Your task to perform on an android device: change keyboard looks Image 0: 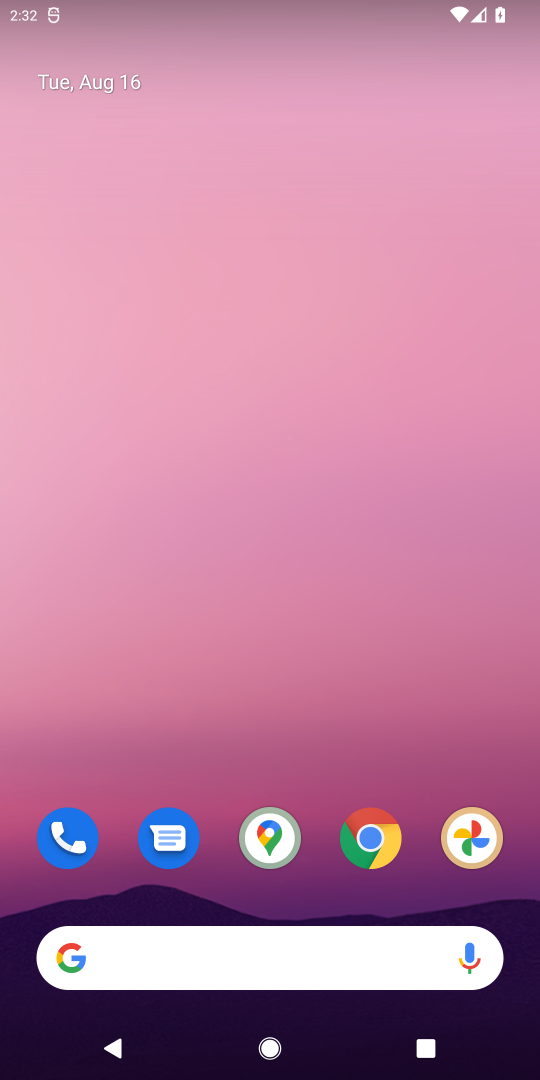
Step 0: press home button
Your task to perform on an android device: change keyboard looks Image 1: 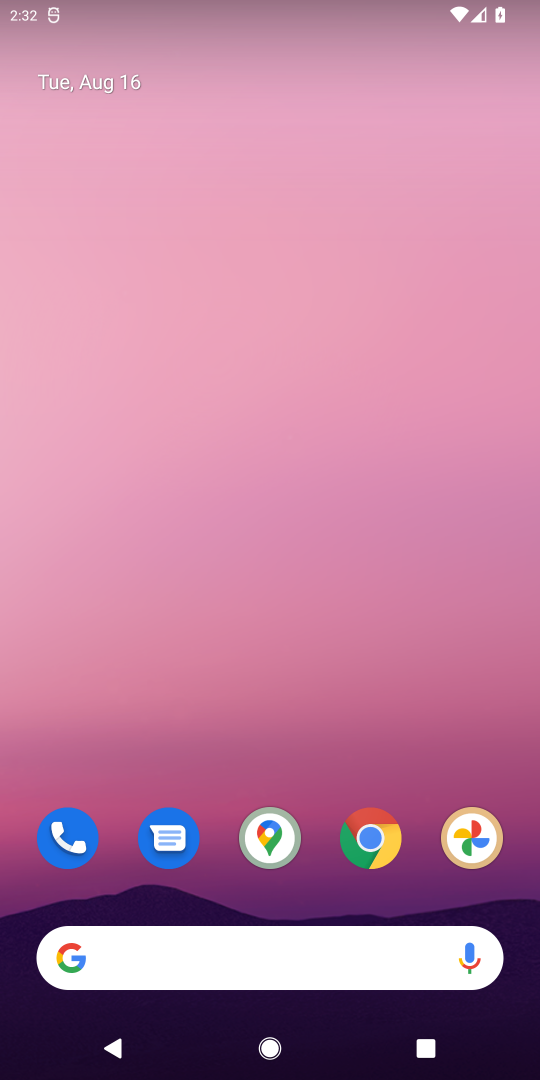
Step 1: drag from (305, 772) to (312, 157)
Your task to perform on an android device: change keyboard looks Image 2: 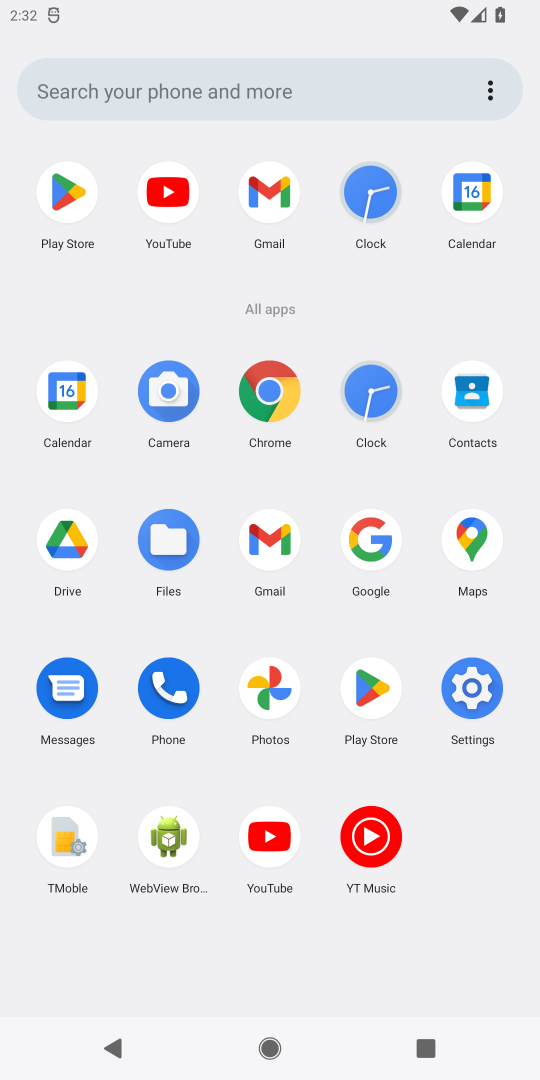
Step 2: click (484, 704)
Your task to perform on an android device: change keyboard looks Image 3: 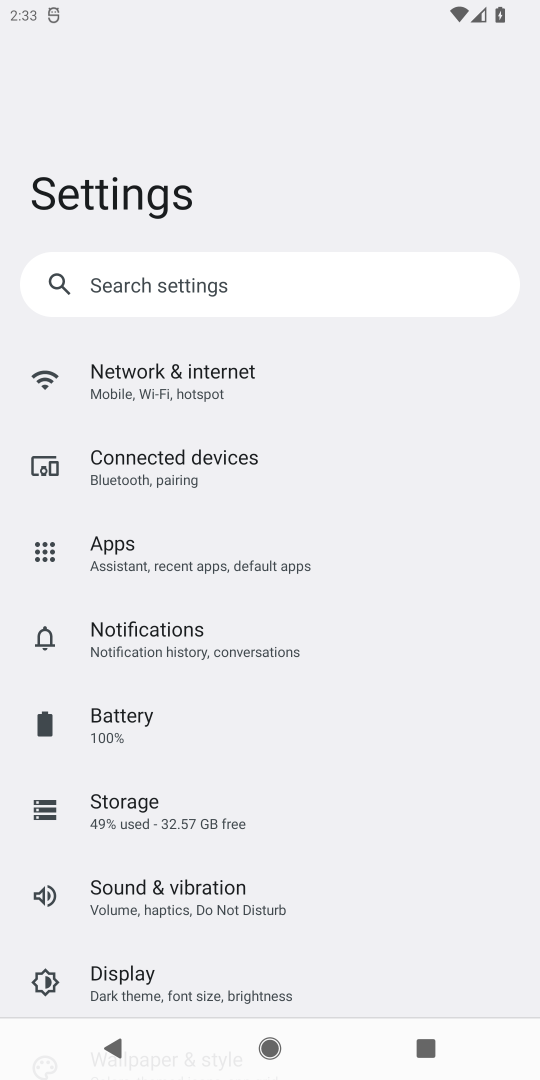
Step 3: drag from (172, 933) to (127, 262)
Your task to perform on an android device: change keyboard looks Image 4: 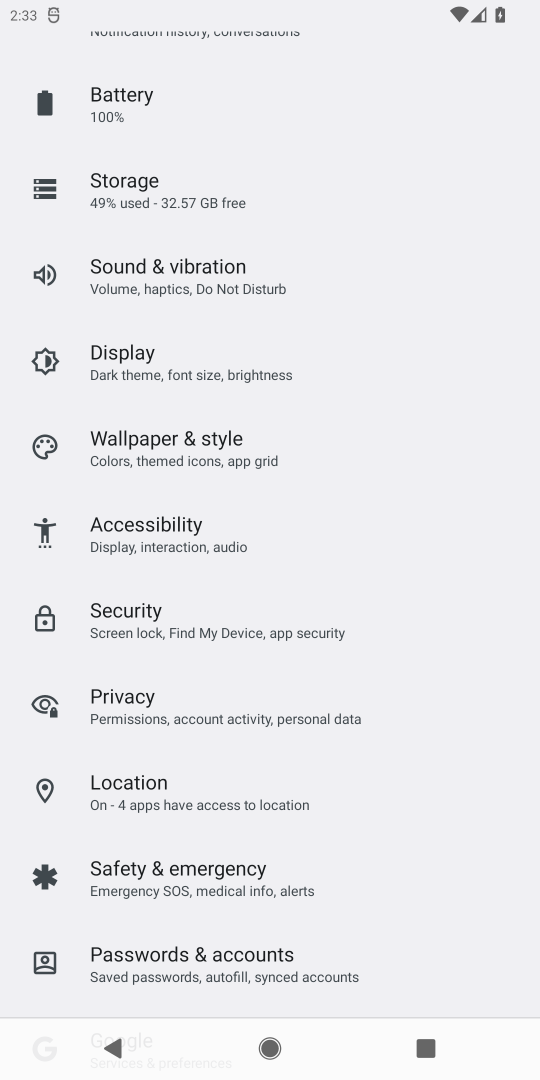
Step 4: drag from (107, 907) to (113, 307)
Your task to perform on an android device: change keyboard looks Image 5: 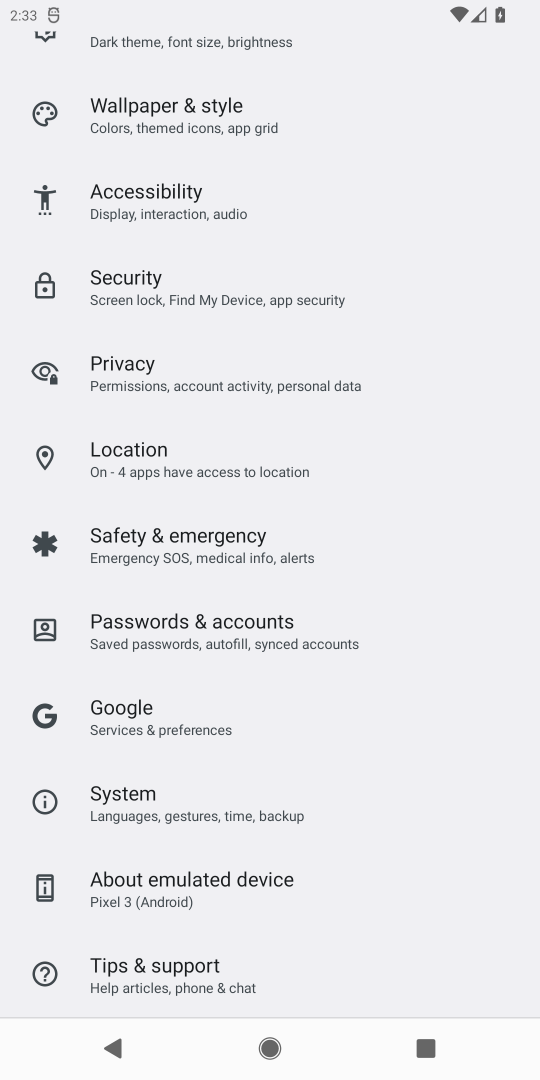
Step 5: click (164, 824)
Your task to perform on an android device: change keyboard looks Image 6: 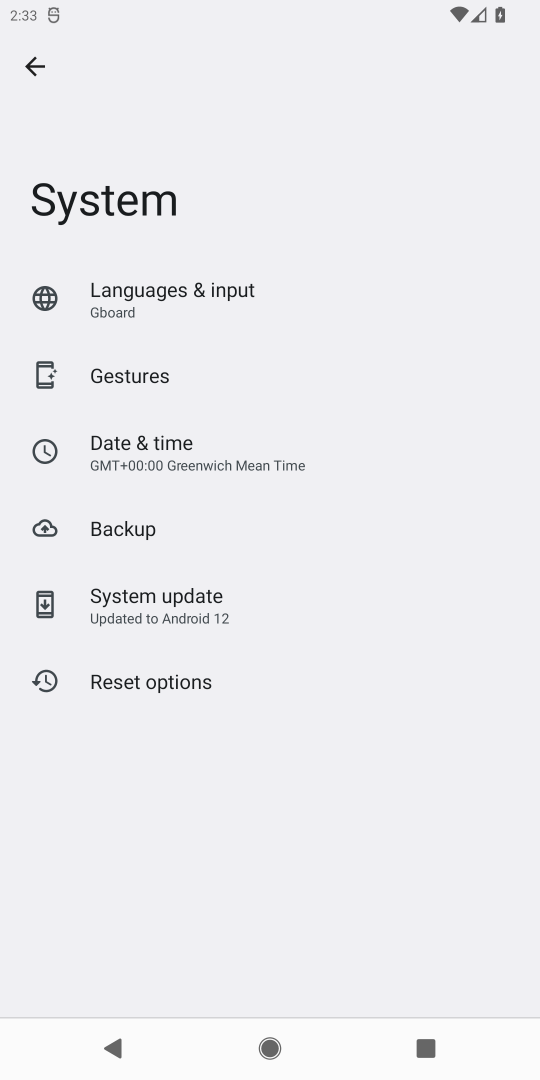
Step 6: click (125, 302)
Your task to perform on an android device: change keyboard looks Image 7: 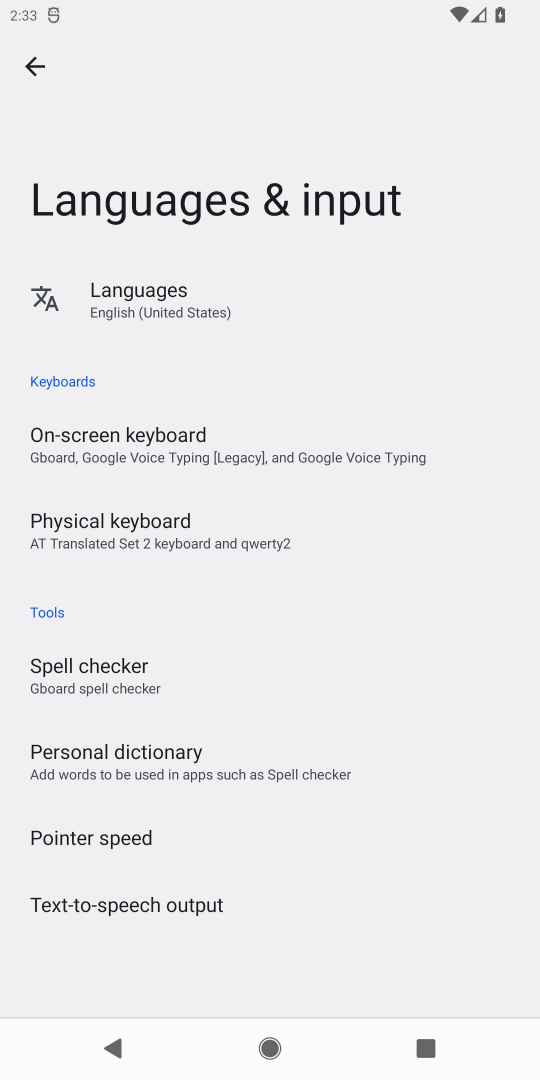
Step 7: click (92, 442)
Your task to perform on an android device: change keyboard looks Image 8: 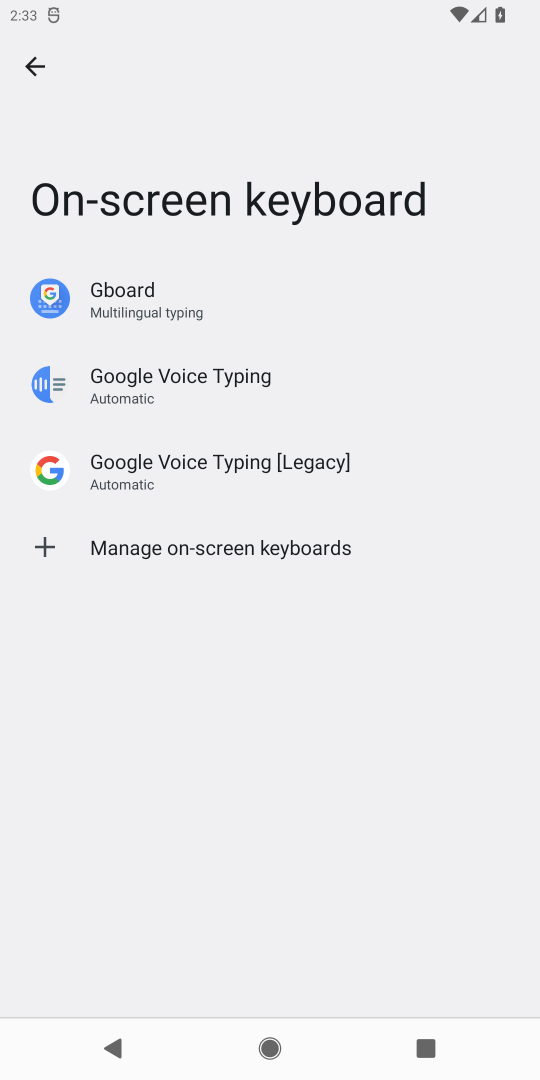
Step 8: click (96, 304)
Your task to perform on an android device: change keyboard looks Image 9: 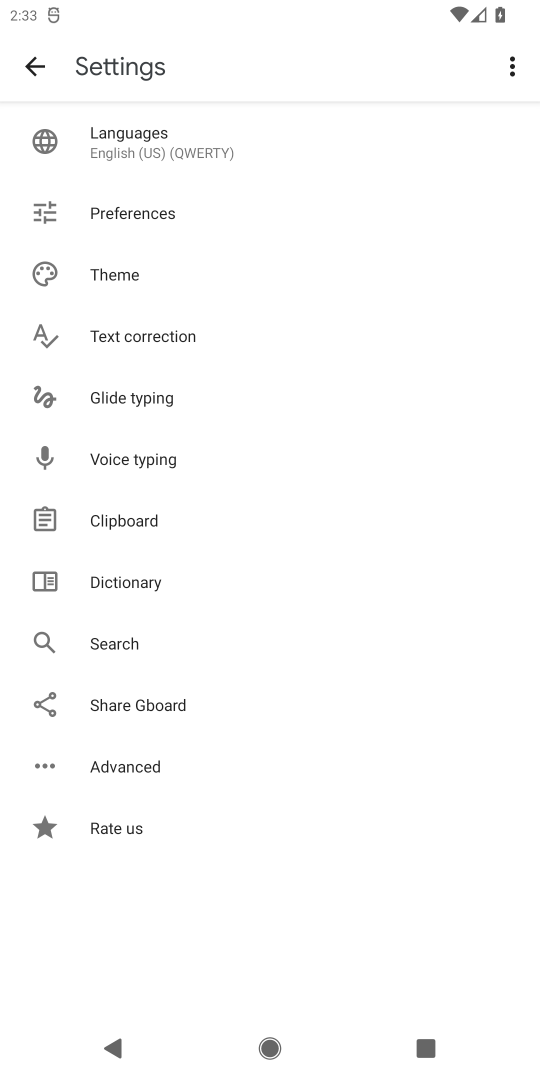
Step 9: click (96, 287)
Your task to perform on an android device: change keyboard looks Image 10: 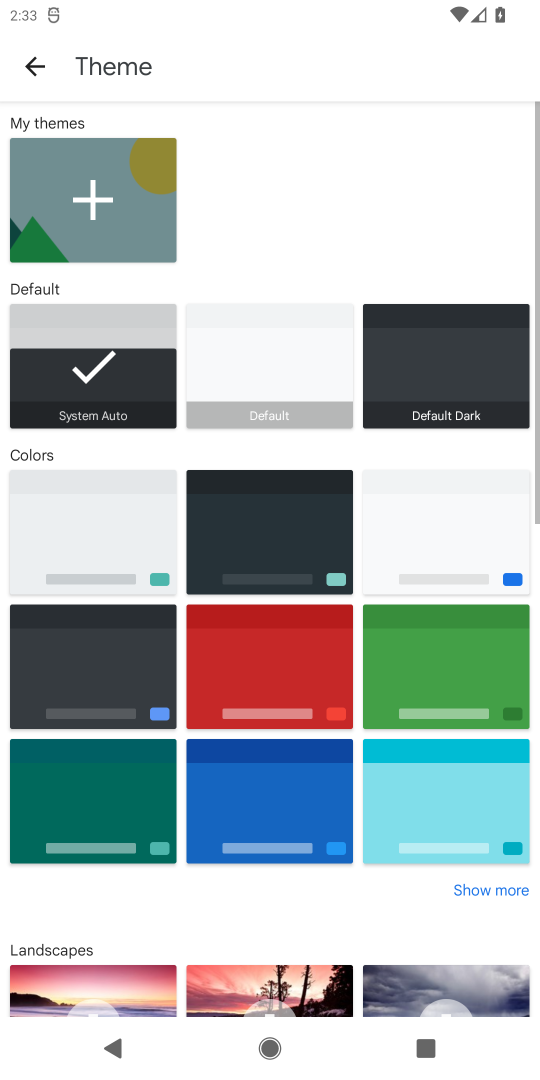
Step 10: click (277, 637)
Your task to perform on an android device: change keyboard looks Image 11: 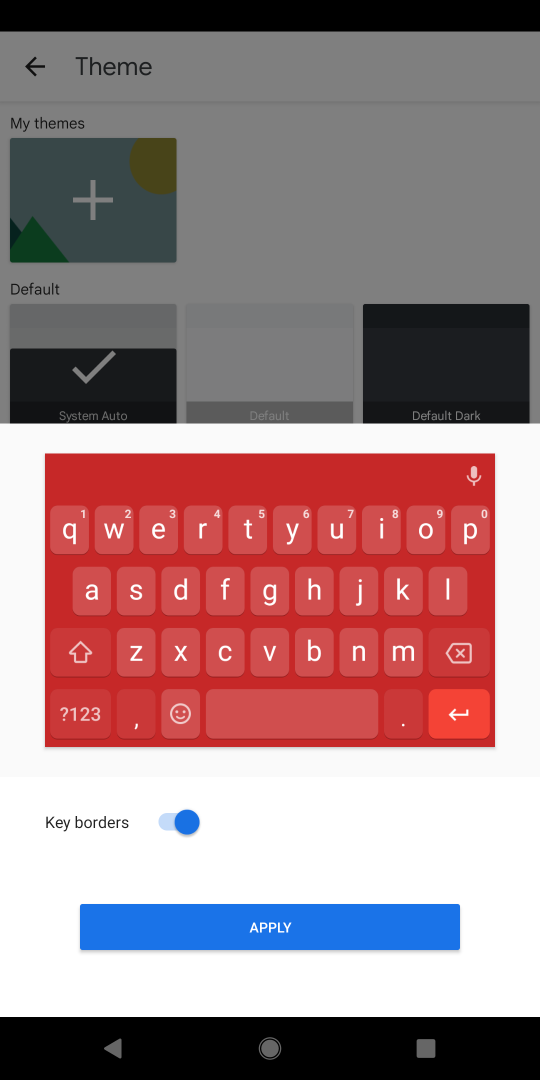
Step 11: click (307, 936)
Your task to perform on an android device: change keyboard looks Image 12: 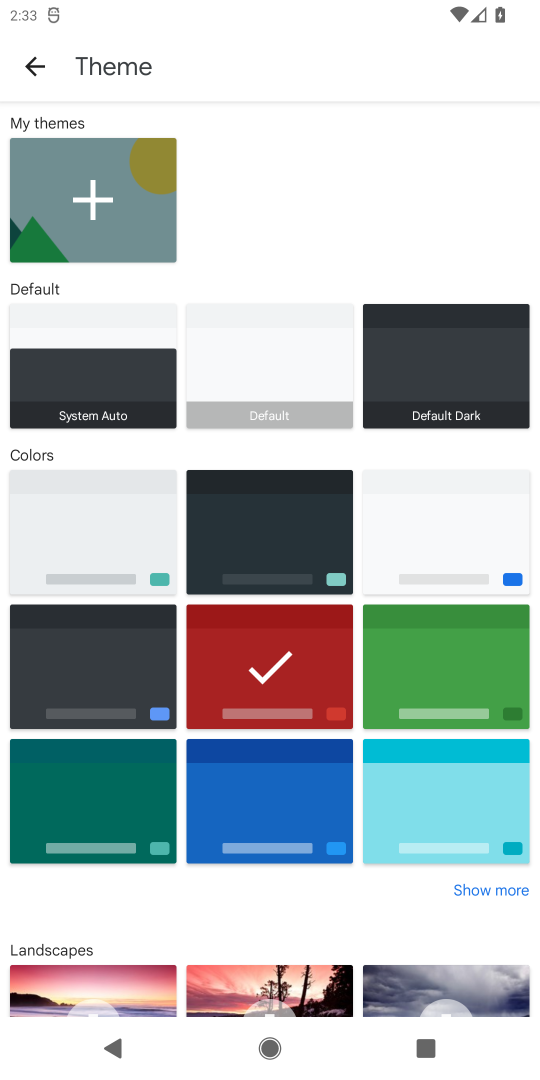
Step 12: task complete